Your task to perform on an android device: open wifi settings Image 0: 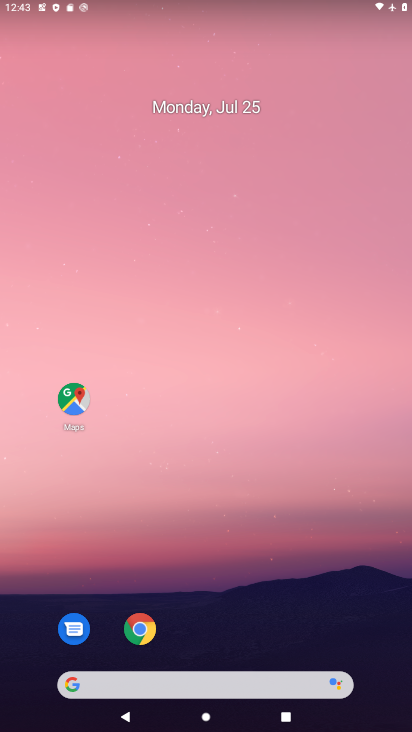
Step 0: drag from (250, 671) to (281, 70)
Your task to perform on an android device: open wifi settings Image 1: 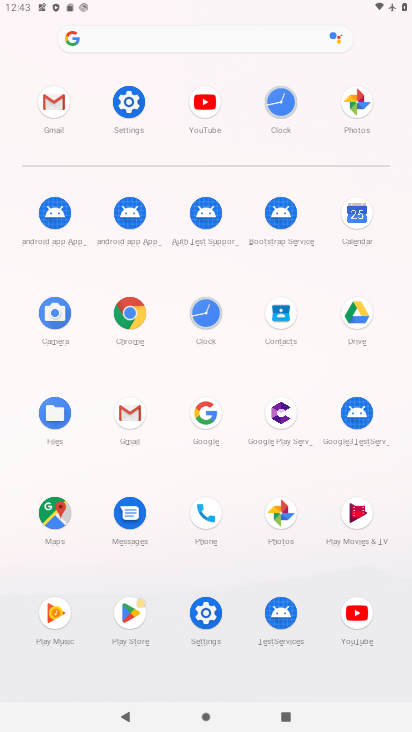
Step 1: click (198, 614)
Your task to perform on an android device: open wifi settings Image 2: 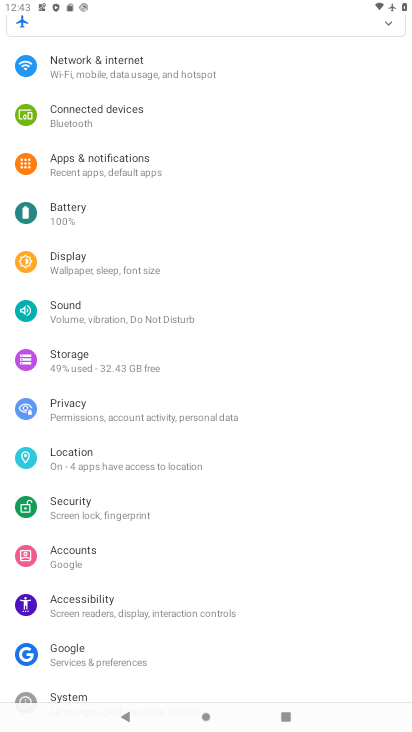
Step 2: click (163, 83)
Your task to perform on an android device: open wifi settings Image 3: 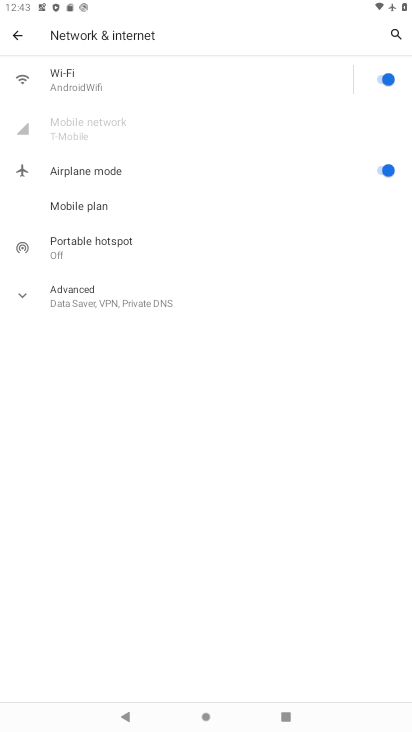
Step 3: click (163, 83)
Your task to perform on an android device: open wifi settings Image 4: 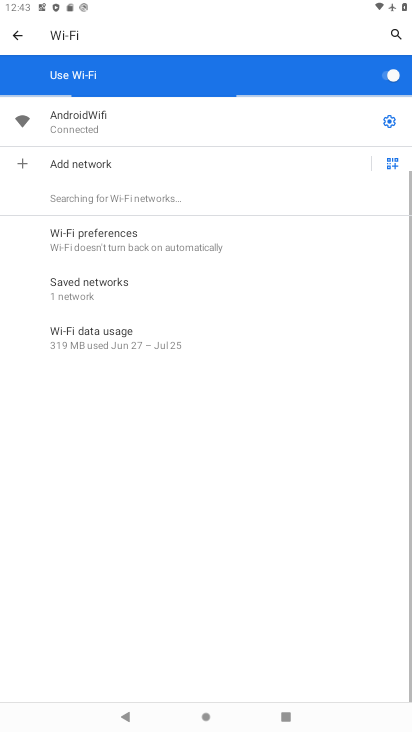
Step 4: task complete